Your task to perform on an android device: Is it going to rain tomorrow? Image 0: 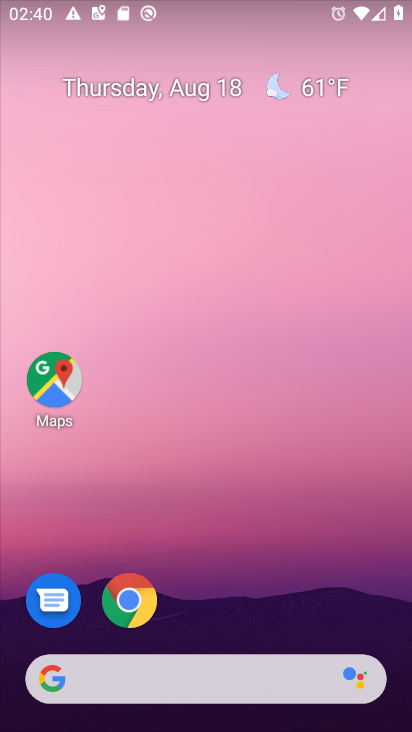
Step 0: press home button
Your task to perform on an android device: Is it going to rain tomorrow? Image 1: 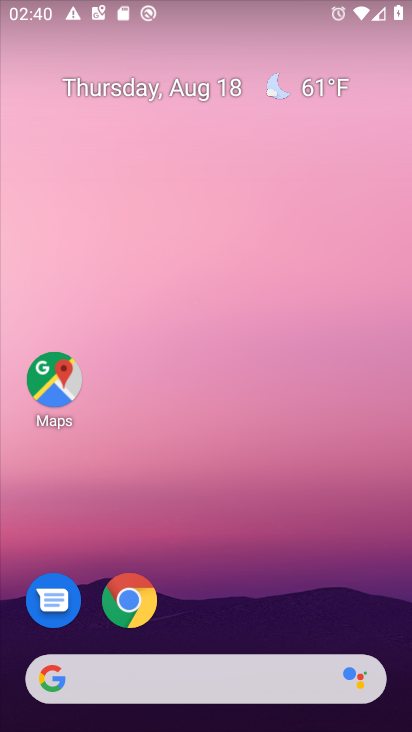
Step 1: click (49, 680)
Your task to perform on an android device: Is it going to rain tomorrow? Image 2: 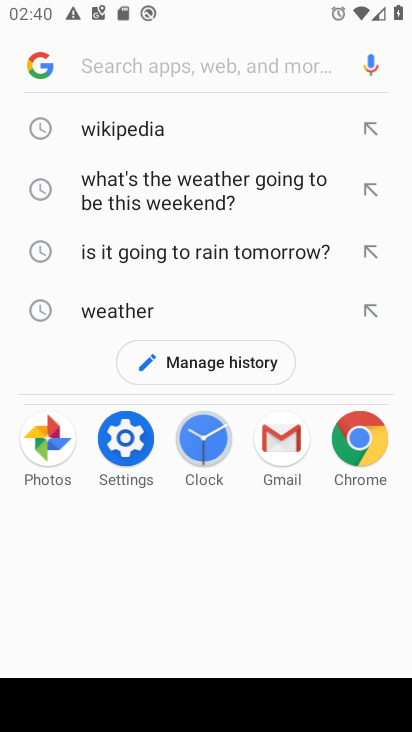
Step 2: type "Is it going to rain tomorrow?"
Your task to perform on an android device: Is it going to rain tomorrow? Image 3: 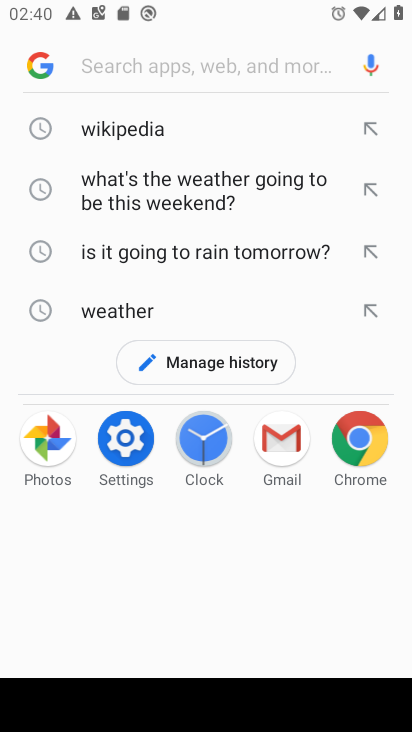
Step 3: click (111, 68)
Your task to perform on an android device: Is it going to rain tomorrow? Image 4: 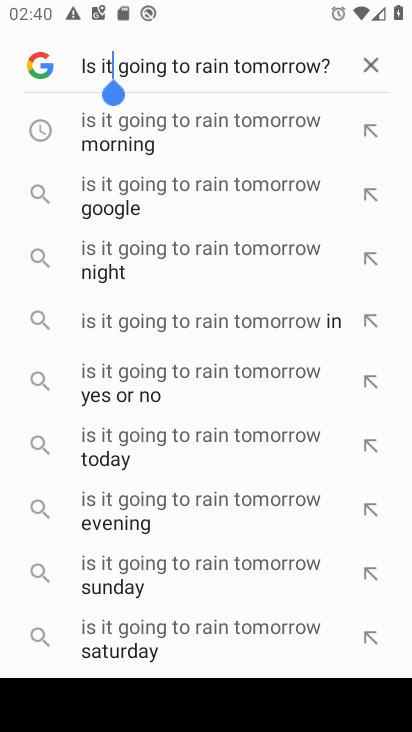
Step 4: press enter
Your task to perform on an android device: Is it going to rain tomorrow? Image 5: 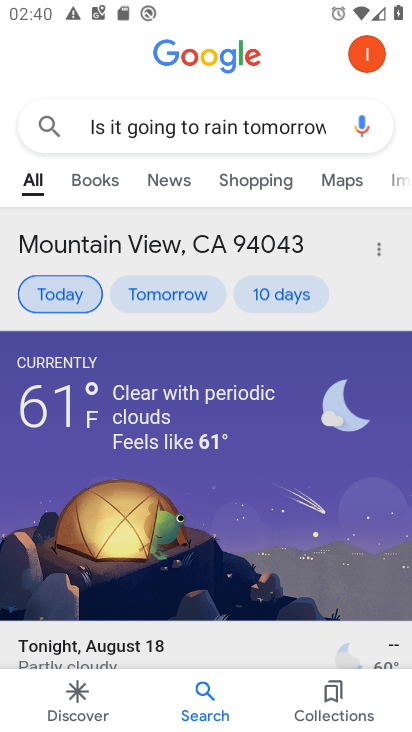
Step 5: task complete